Your task to perform on an android device: turn vacation reply on in the gmail app Image 0: 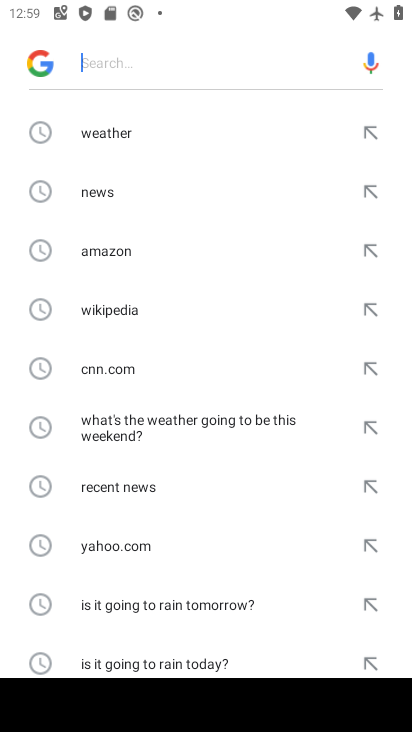
Step 0: press home button
Your task to perform on an android device: turn vacation reply on in the gmail app Image 1: 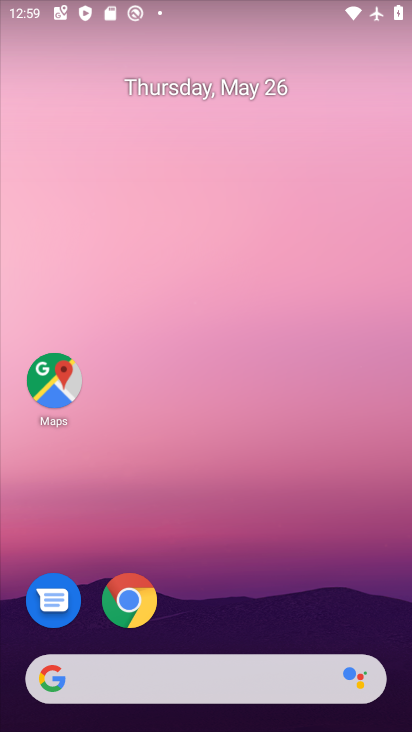
Step 1: drag from (279, 566) to (249, 167)
Your task to perform on an android device: turn vacation reply on in the gmail app Image 2: 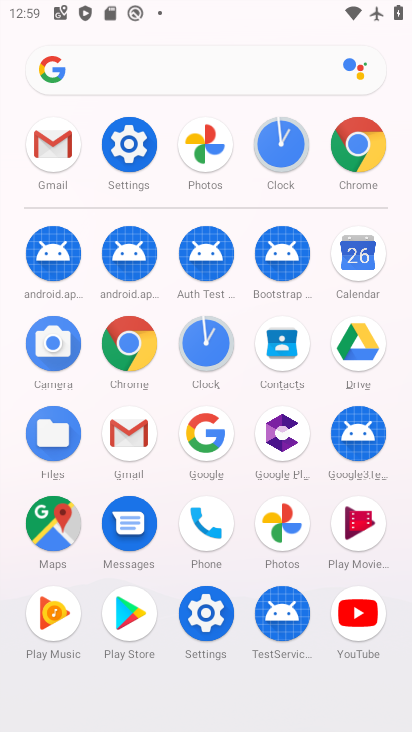
Step 2: click (66, 158)
Your task to perform on an android device: turn vacation reply on in the gmail app Image 3: 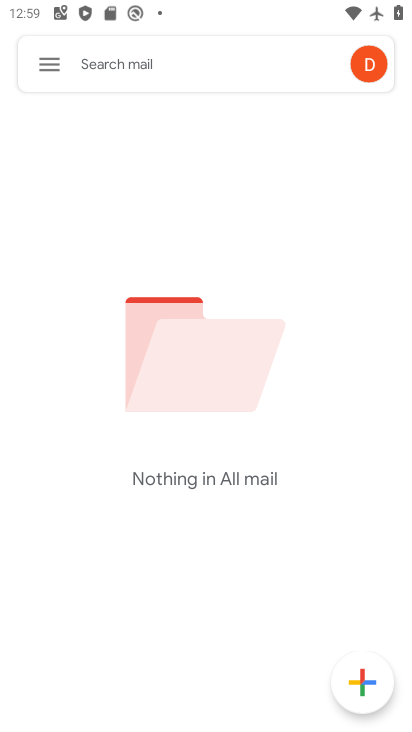
Step 3: click (52, 62)
Your task to perform on an android device: turn vacation reply on in the gmail app Image 4: 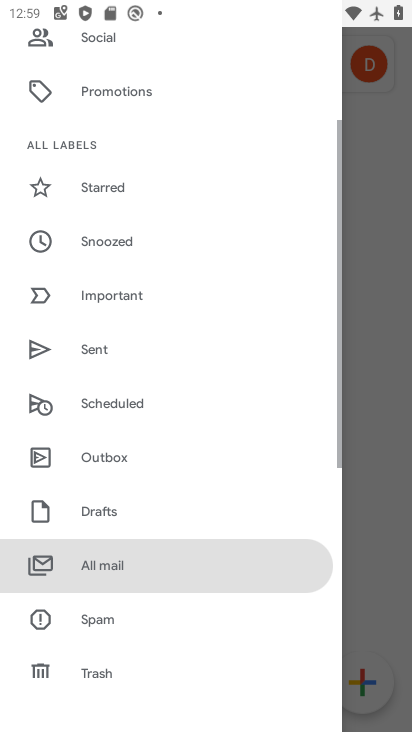
Step 4: drag from (173, 623) to (206, 132)
Your task to perform on an android device: turn vacation reply on in the gmail app Image 5: 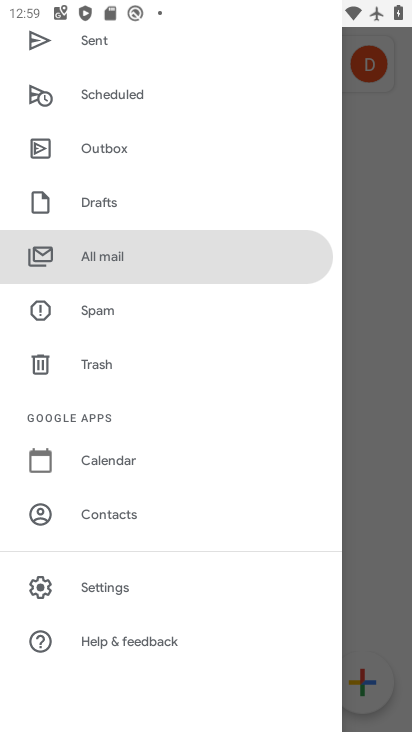
Step 5: click (130, 600)
Your task to perform on an android device: turn vacation reply on in the gmail app Image 6: 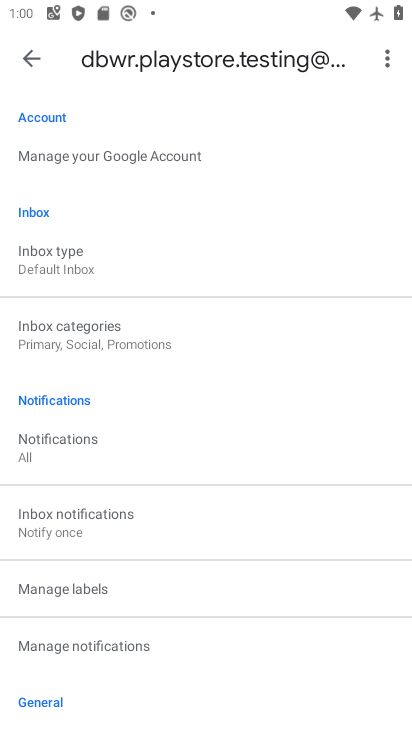
Step 6: drag from (175, 606) to (259, 74)
Your task to perform on an android device: turn vacation reply on in the gmail app Image 7: 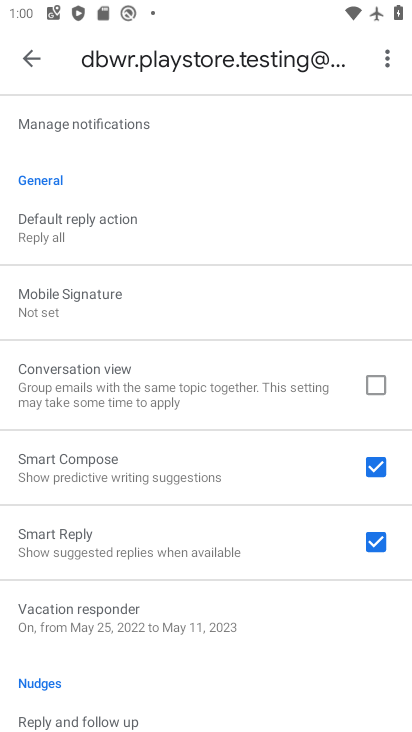
Step 7: click (173, 610)
Your task to perform on an android device: turn vacation reply on in the gmail app Image 8: 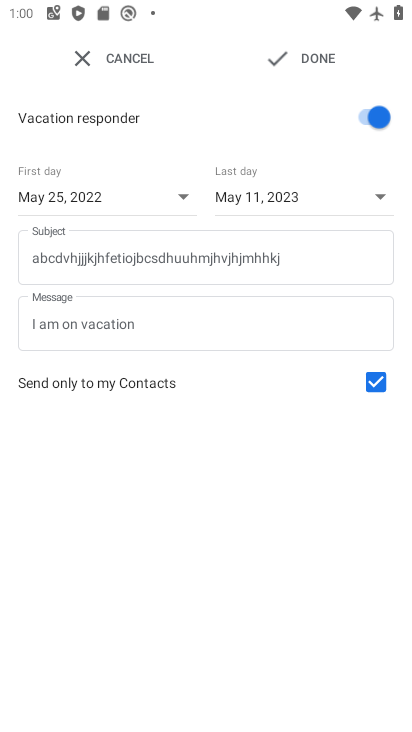
Step 8: task complete